Your task to perform on an android device: Open the Play Movies app and select the watchlist tab. Image 0: 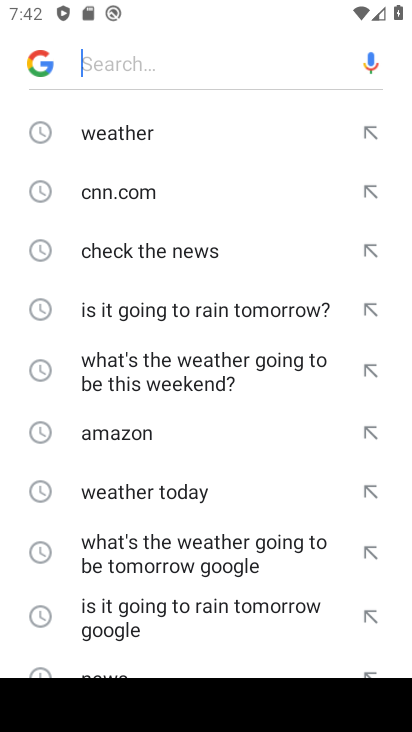
Step 0: press home button
Your task to perform on an android device: Open the Play Movies app and select the watchlist tab. Image 1: 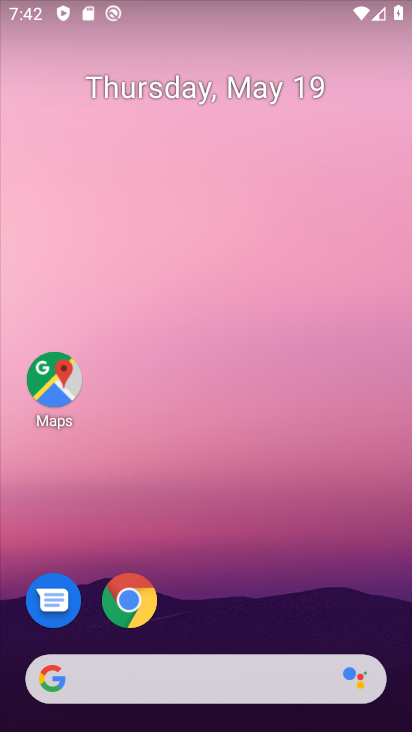
Step 1: drag from (351, 647) to (338, 4)
Your task to perform on an android device: Open the Play Movies app and select the watchlist tab. Image 2: 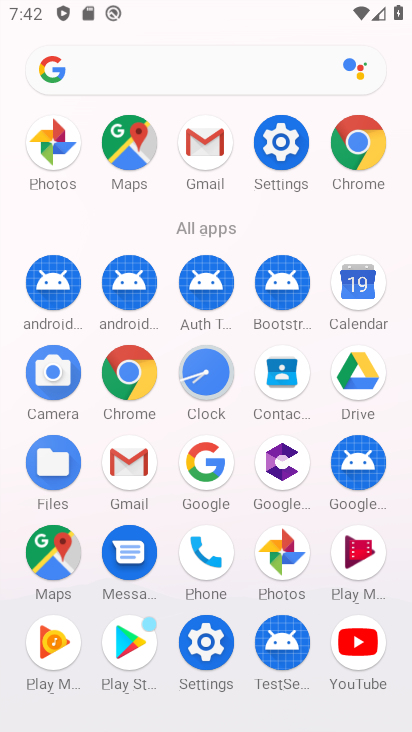
Step 2: click (362, 545)
Your task to perform on an android device: Open the Play Movies app and select the watchlist tab. Image 3: 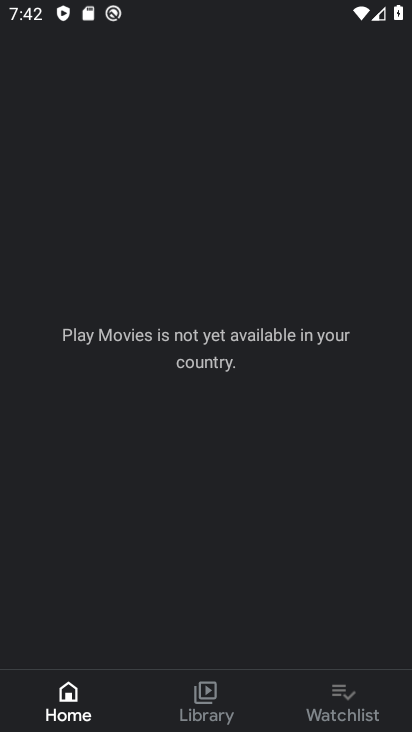
Step 3: click (343, 697)
Your task to perform on an android device: Open the Play Movies app and select the watchlist tab. Image 4: 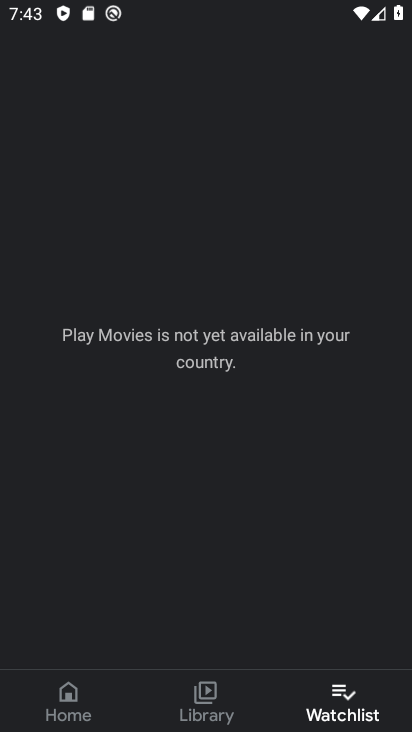
Step 4: task complete